Your task to perform on an android device: Open the calendar app, open the side menu, and click the "Day" option Image 0: 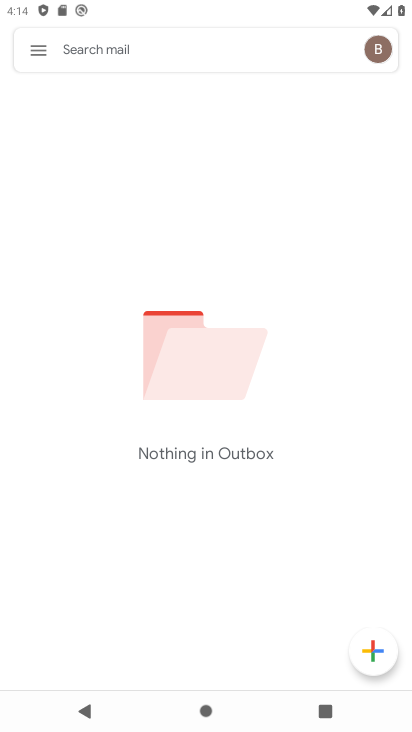
Step 0: press home button
Your task to perform on an android device: Open the calendar app, open the side menu, and click the "Day" option Image 1: 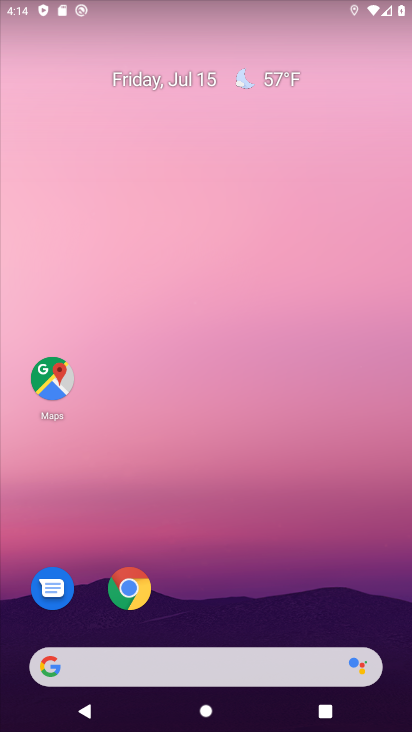
Step 1: drag from (179, 675) to (304, 78)
Your task to perform on an android device: Open the calendar app, open the side menu, and click the "Day" option Image 2: 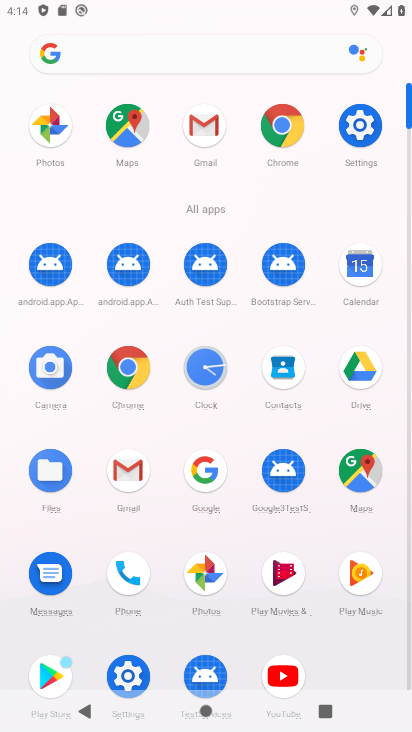
Step 2: click (359, 268)
Your task to perform on an android device: Open the calendar app, open the side menu, and click the "Day" option Image 3: 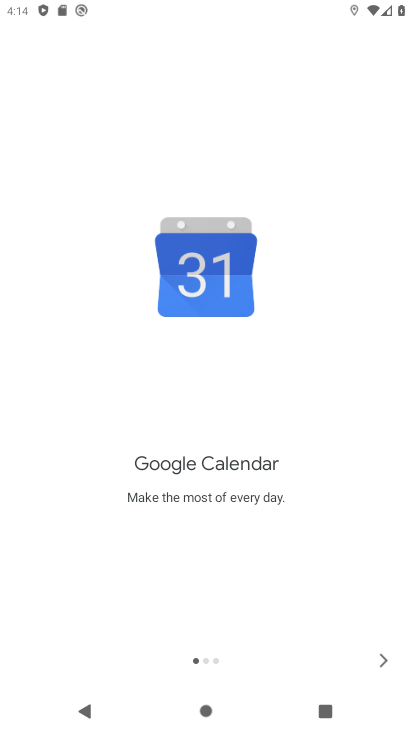
Step 3: click (383, 662)
Your task to perform on an android device: Open the calendar app, open the side menu, and click the "Day" option Image 4: 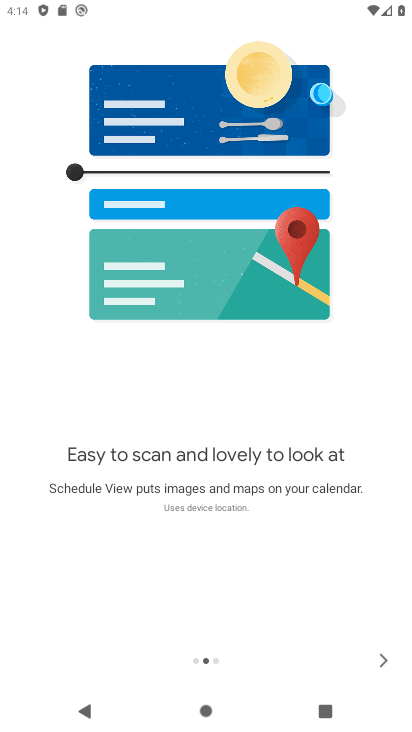
Step 4: click (383, 662)
Your task to perform on an android device: Open the calendar app, open the side menu, and click the "Day" option Image 5: 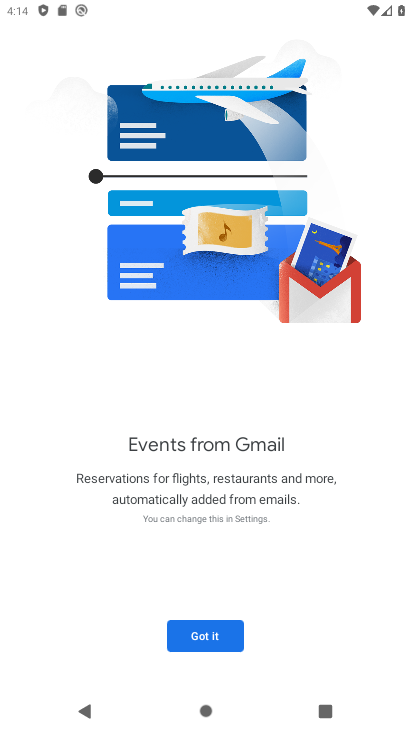
Step 5: click (208, 638)
Your task to perform on an android device: Open the calendar app, open the side menu, and click the "Day" option Image 6: 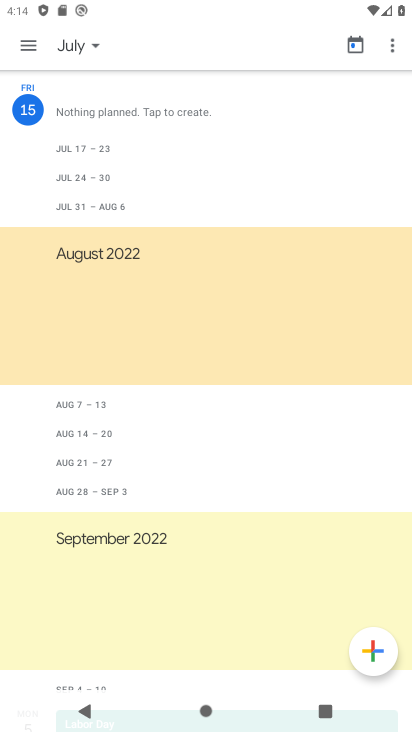
Step 6: click (27, 49)
Your task to perform on an android device: Open the calendar app, open the side menu, and click the "Day" option Image 7: 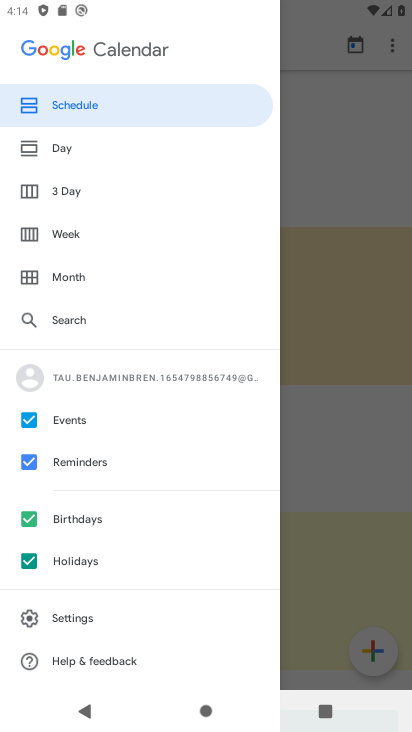
Step 7: click (64, 146)
Your task to perform on an android device: Open the calendar app, open the side menu, and click the "Day" option Image 8: 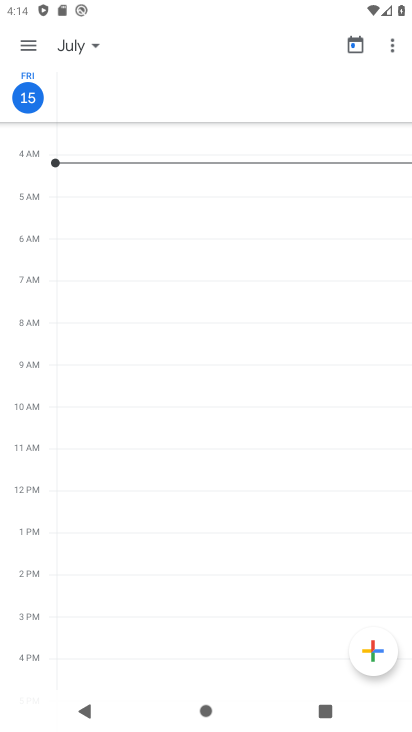
Step 8: task complete